Your task to perform on an android device: find photos in the google photos app Image 0: 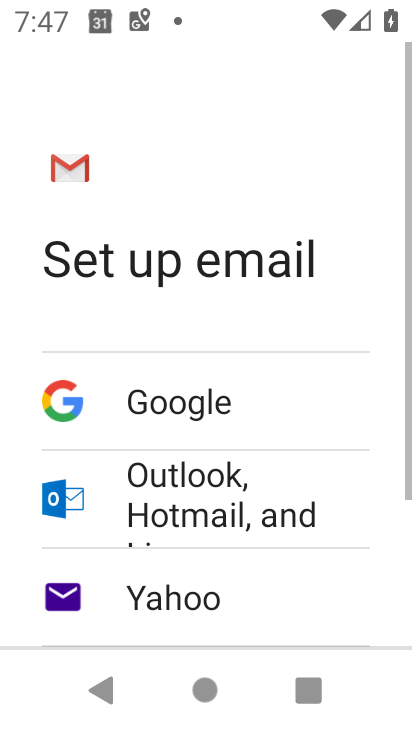
Step 0: press home button
Your task to perform on an android device: find photos in the google photos app Image 1: 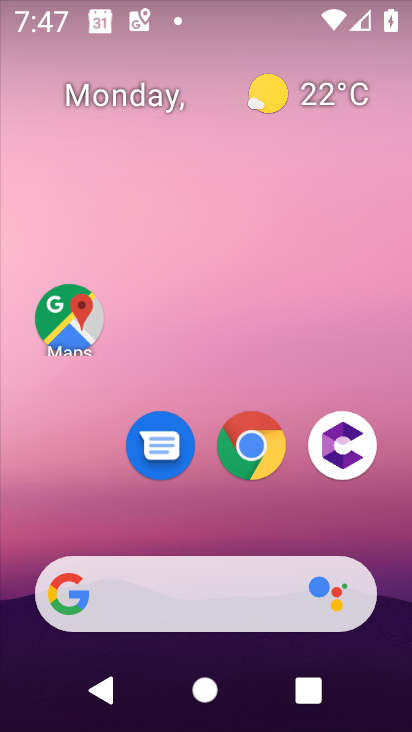
Step 1: drag from (303, 388) to (277, 95)
Your task to perform on an android device: find photos in the google photos app Image 2: 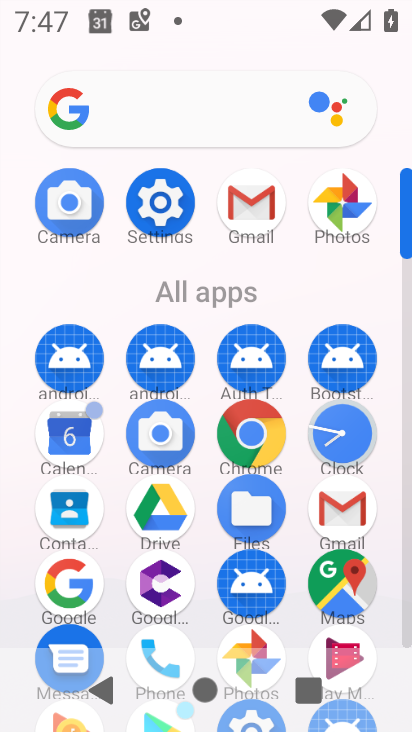
Step 2: click (330, 204)
Your task to perform on an android device: find photos in the google photos app Image 3: 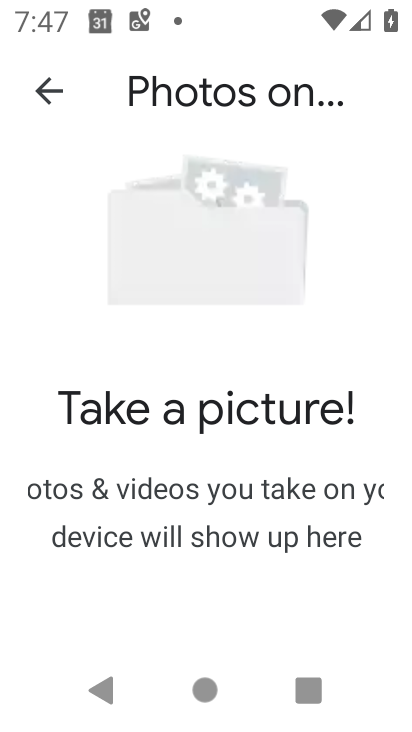
Step 3: click (40, 94)
Your task to perform on an android device: find photos in the google photos app Image 4: 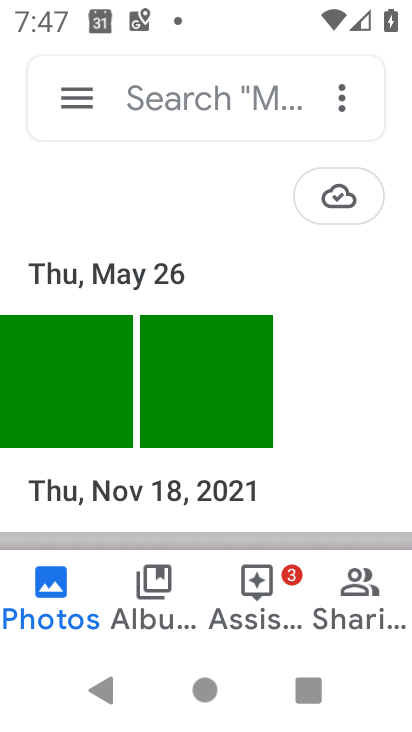
Step 4: drag from (314, 595) to (2, 597)
Your task to perform on an android device: find photos in the google photos app Image 5: 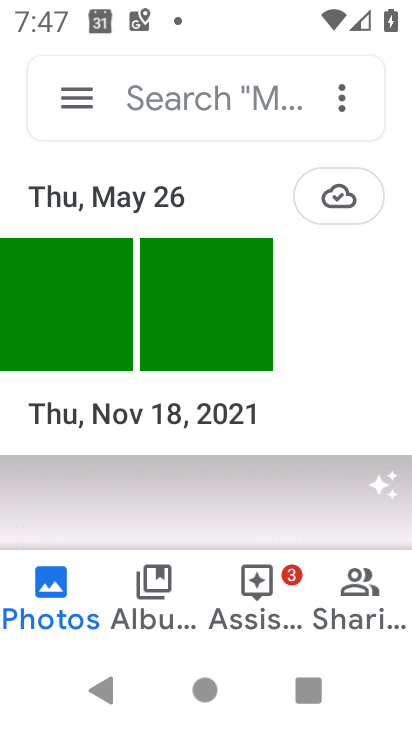
Step 5: click (57, 589)
Your task to perform on an android device: find photos in the google photos app Image 6: 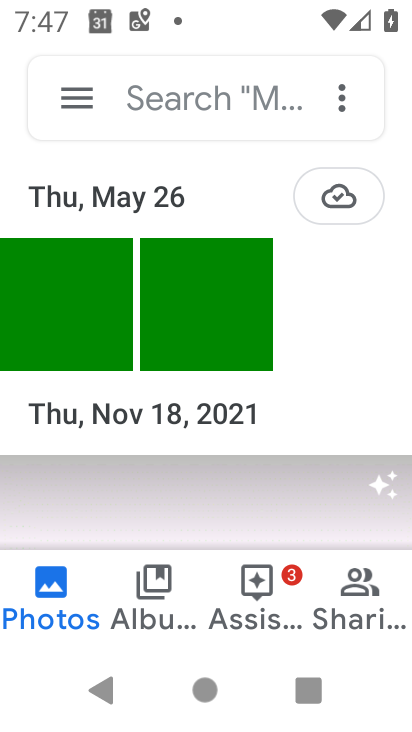
Step 6: drag from (283, 471) to (289, 282)
Your task to perform on an android device: find photos in the google photos app Image 7: 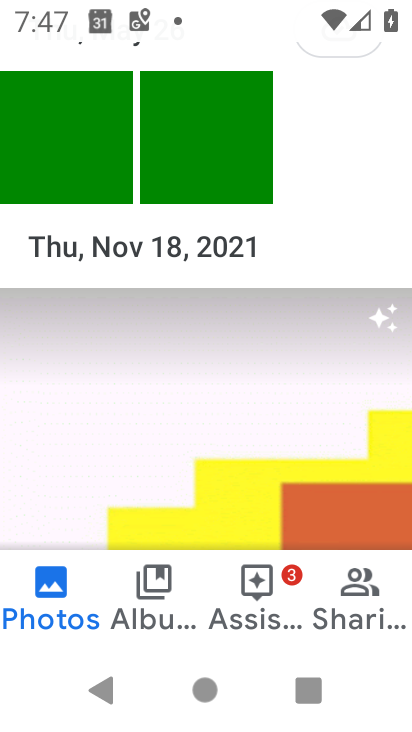
Step 7: drag from (290, 431) to (273, 66)
Your task to perform on an android device: find photos in the google photos app Image 8: 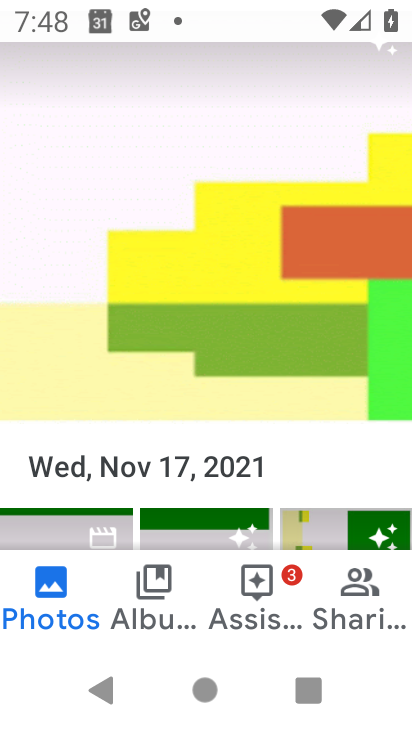
Step 8: click (59, 611)
Your task to perform on an android device: find photos in the google photos app Image 9: 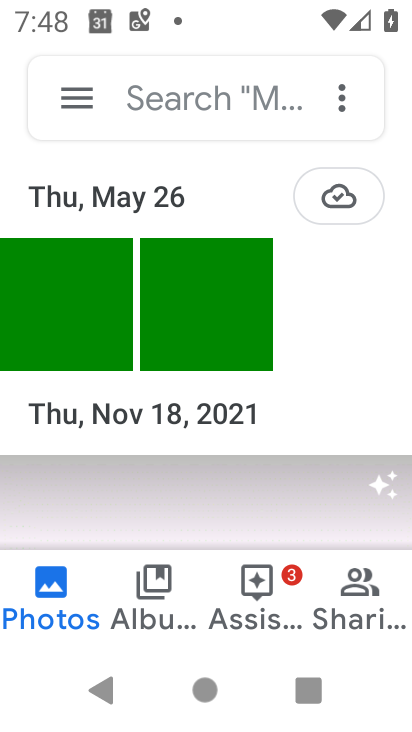
Step 9: task complete